Your task to perform on an android device: Show me productivity apps on the Play Store Image 0: 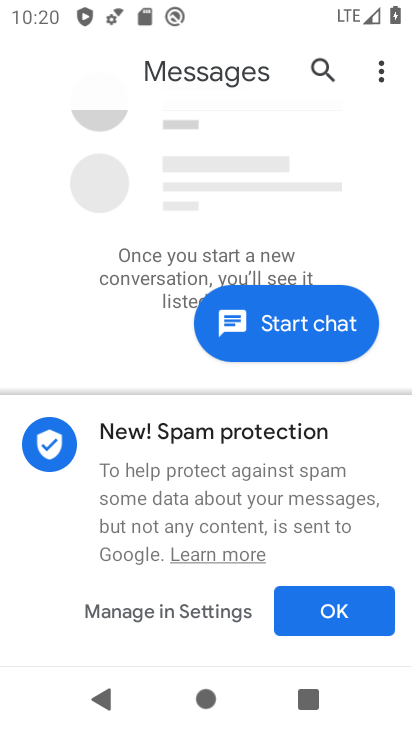
Step 0: press back button
Your task to perform on an android device: Show me productivity apps on the Play Store Image 1: 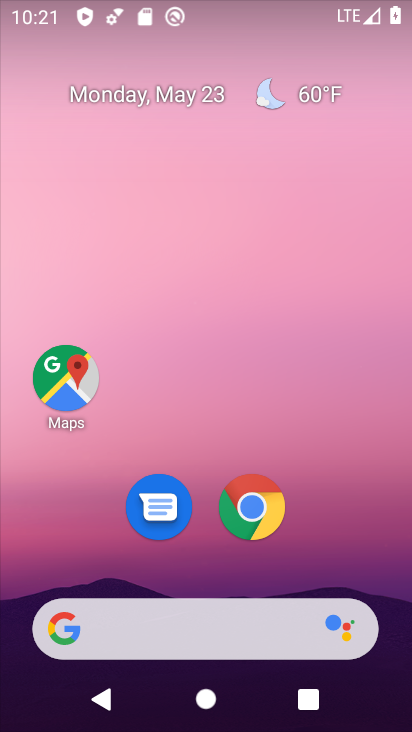
Step 1: drag from (329, 536) to (400, 18)
Your task to perform on an android device: Show me productivity apps on the Play Store Image 2: 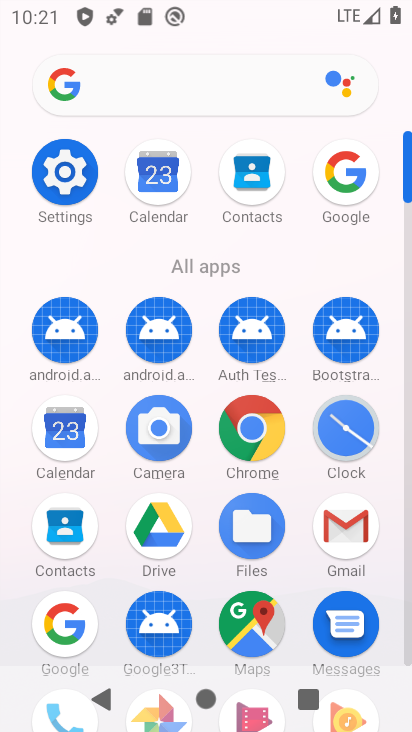
Step 2: drag from (203, 532) to (211, 260)
Your task to perform on an android device: Show me productivity apps on the Play Store Image 3: 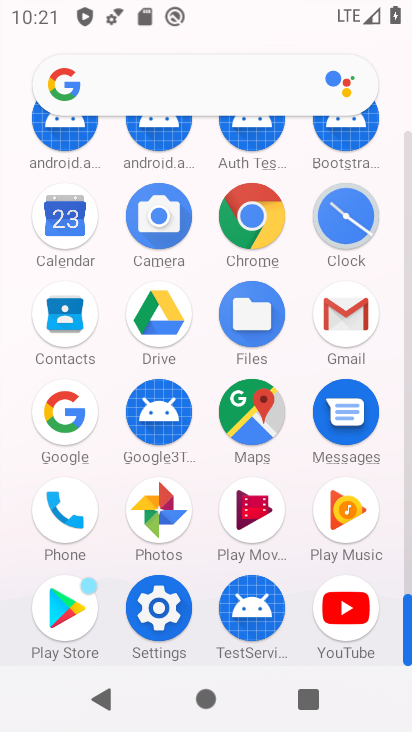
Step 3: click (69, 608)
Your task to perform on an android device: Show me productivity apps on the Play Store Image 4: 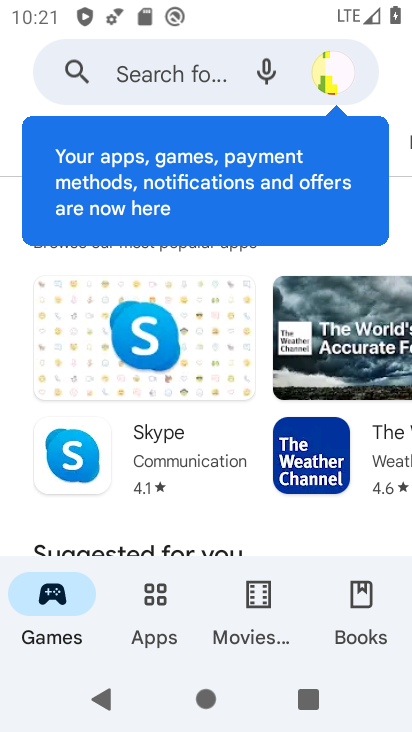
Step 4: click (150, 604)
Your task to perform on an android device: Show me productivity apps on the Play Store Image 5: 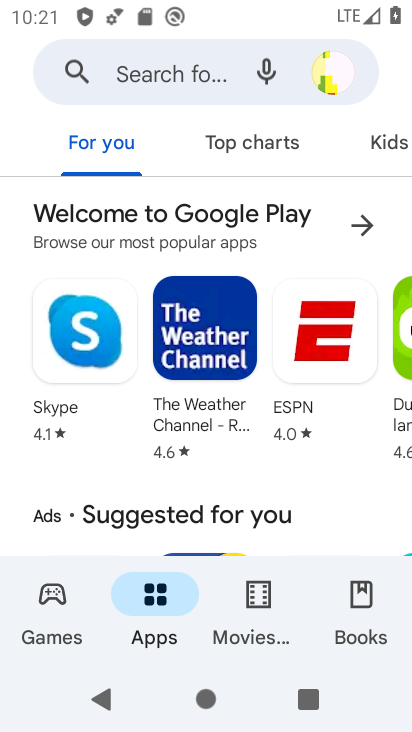
Step 5: drag from (369, 146) to (205, 156)
Your task to perform on an android device: Show me productivity apps on the Play Store Image 6: 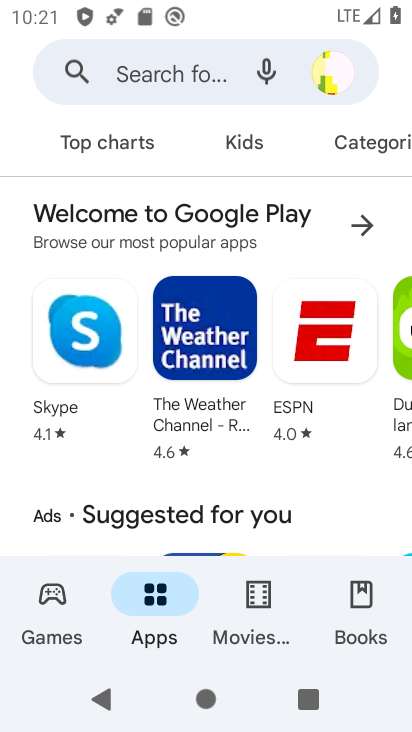
Step 6: click (391, 146)
Your task to perform on an android device: Show me productivity apps on the Play Store Image 7: 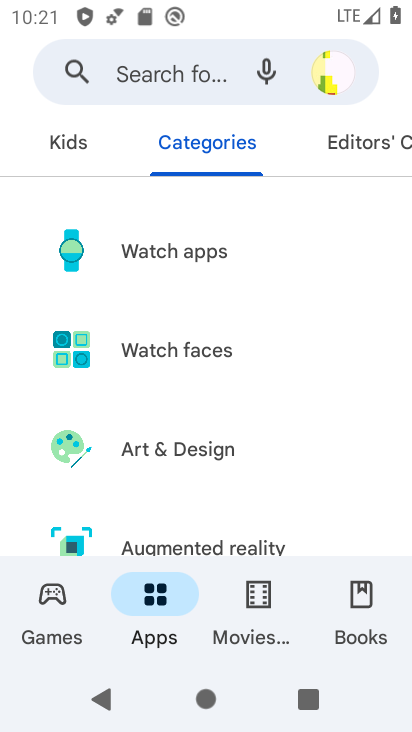
Step 7: drag from (154, 408) to (271, 268)
Your task to perform on an android device: Show me productivity apps on the Play Store Image 8: 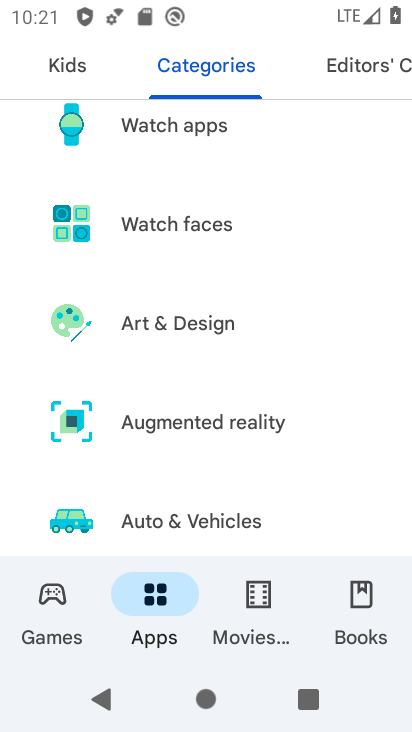
Step 8: drag from (159, 382) to (268, 251)
Your task to perform on an android device: Show me productivity apps on the Play Store Image 9: 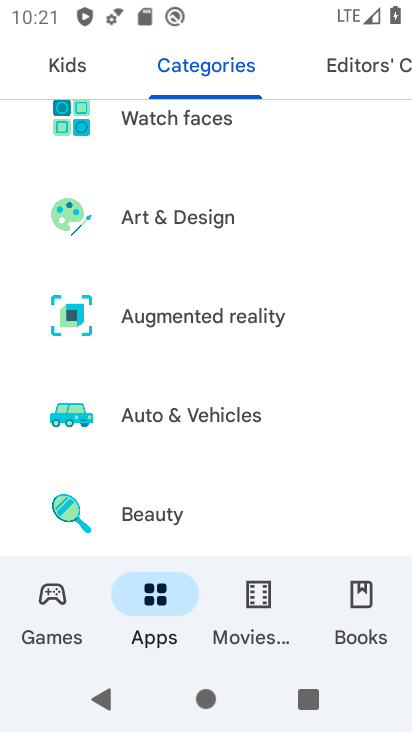
Step 9: drag from (180, 375) to (275, 266)
Your task to perform on an android device: Show me productivity apps on the Play Store Image 10: 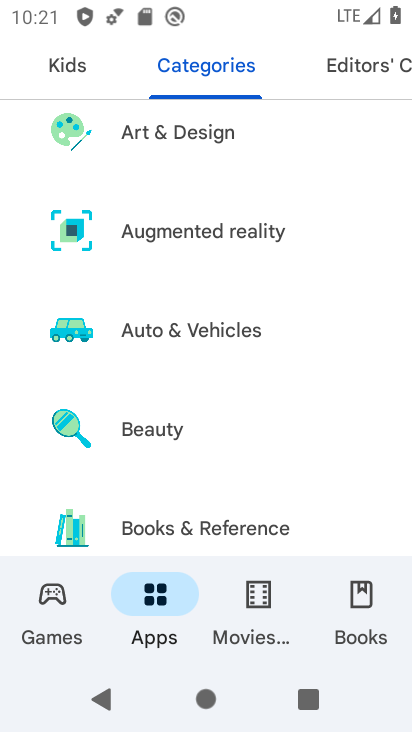
Step 10: drag from (168, 385) to (268, 272)
Your task to perform on an android device: Show me productivity apps on the Play Store Image 11: 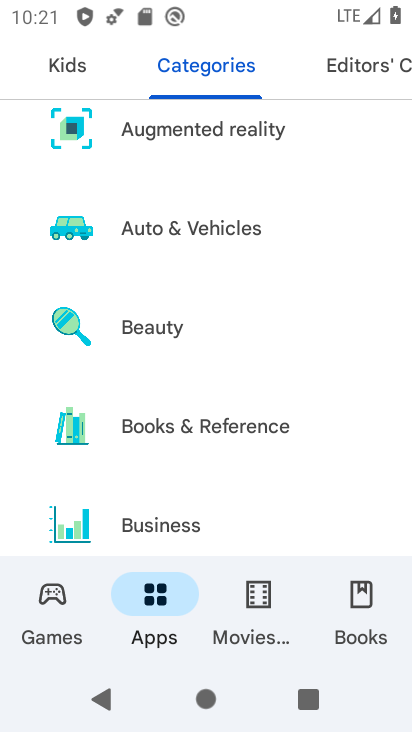
Step 11: drag from (148, 391) to (252, 270)
Your task to perform on an android device: Show me productivity apps on the Play Store Image 12: 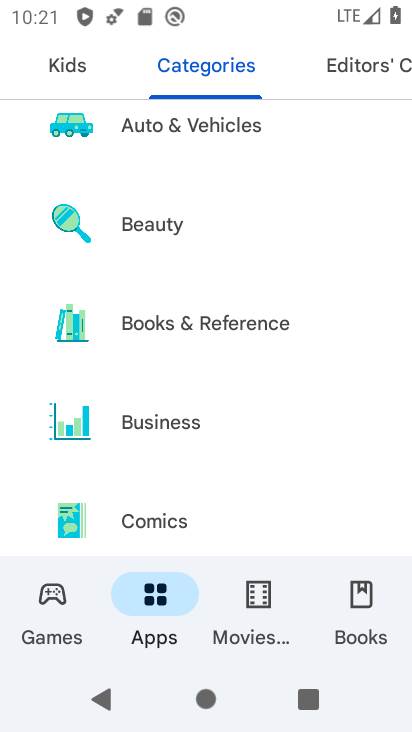
Step 12: drag from (156, 383) to (281, 229)
Your task to perform on an android device: Show me productivity apps on the Play Store Image 13: 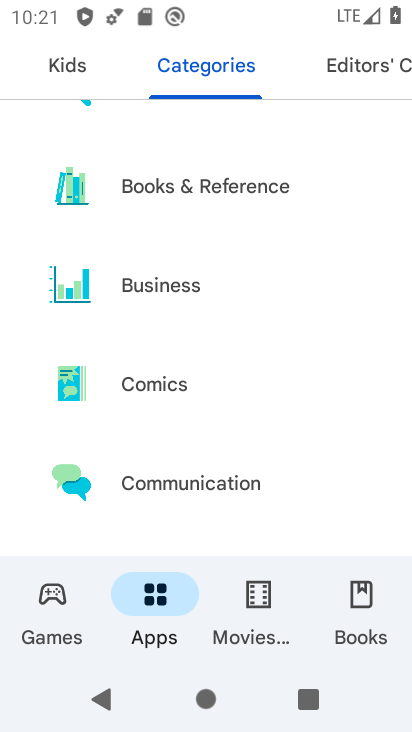
Step 13: drag from (145, 426) to (301, 245)
Your task to perform on an android device: Show me productivity apps on the Play Store Image 14: 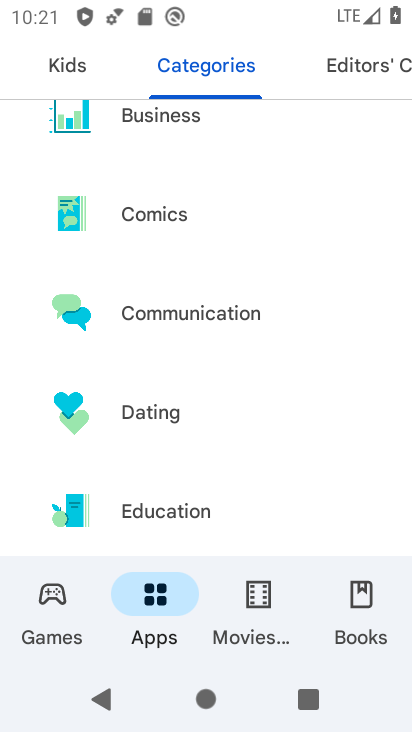
Step 14: drag from (151, 461) to (282, 211)
Your task to perform on an android device: Show me productivity apps on the Play Store Image 15: 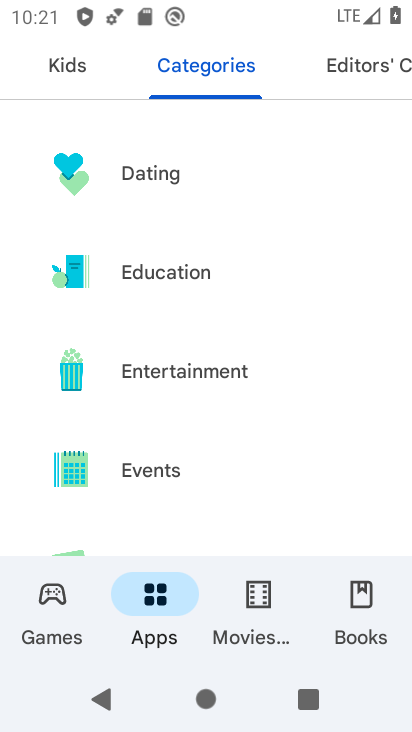
Step 15: drag from (163, 424) to (193, 327)
Your task to perform on an android device: Show me productivity apps on the Play Store Image 16: 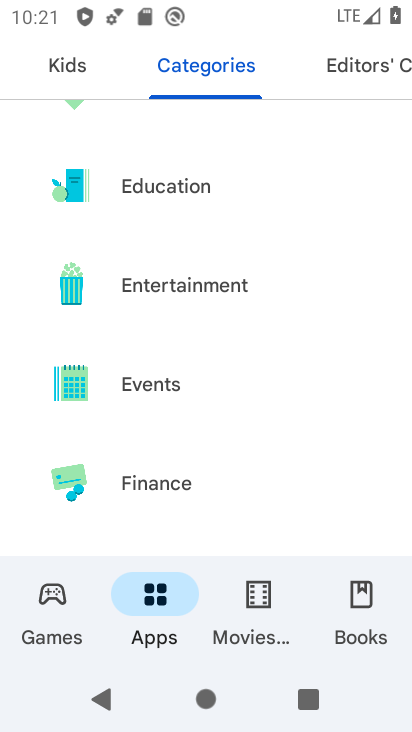
Step 16: drag from (138, 438) to (199, 337)
Your task to perform on an android device: Show me productivity apps on the Play Store Image 17: 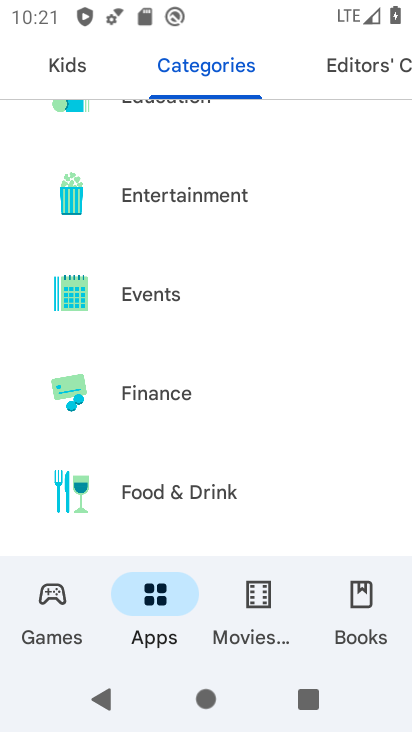
Step 17: drag from (164, 436) to (233, 347)
Your task to perform on an android device: Show me productivity apps on the Play Store Image 18: 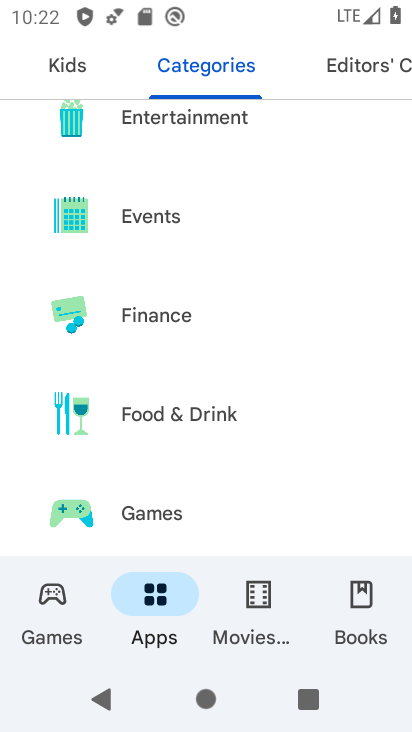
Step 18: drag from (149, 460) to (229, 349)
Your task to perform on an android device: Show me productivity apps on the Play Store Image 19: 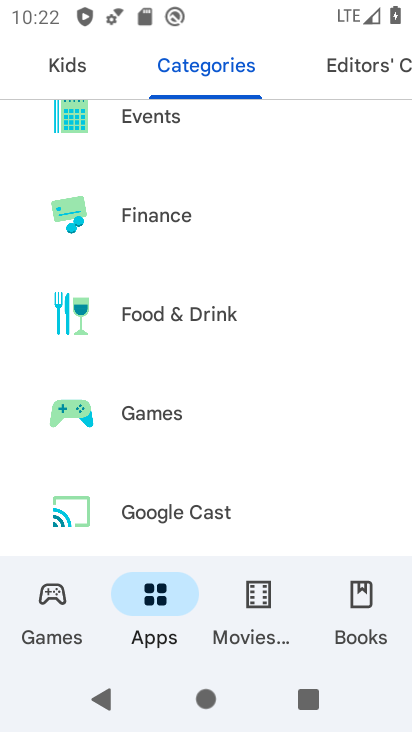
Step 19: drag from (145, 459) to (157, 328)
Your task to perform on an android device: Show me productivity apps on the Play Store Image 20: 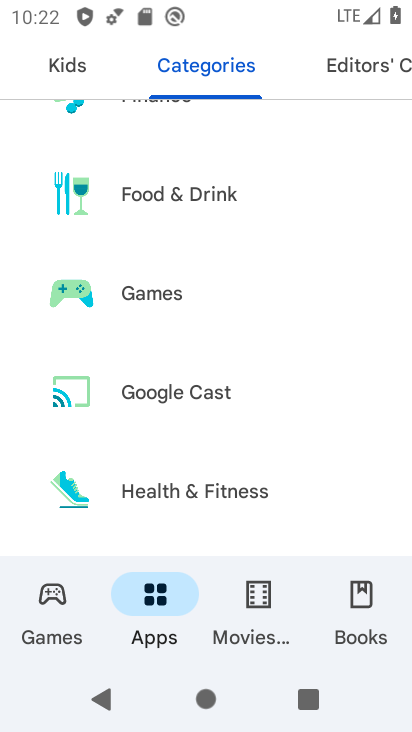
Step 20: drag from (164, 425) to (208, 333)
Your task to perform on an android device: Show me productivity apps on the Play Store Image 21: 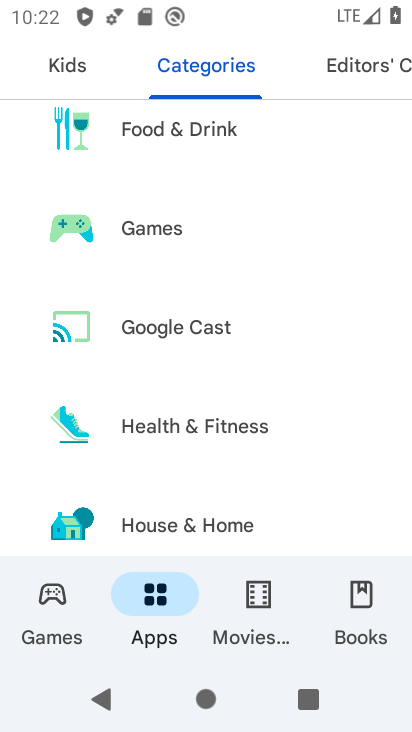
Step 21: drag from (148, 469) to (204, 356)
Your task to perform on an android device: Show me productivity apps on the Play Store Image 22: 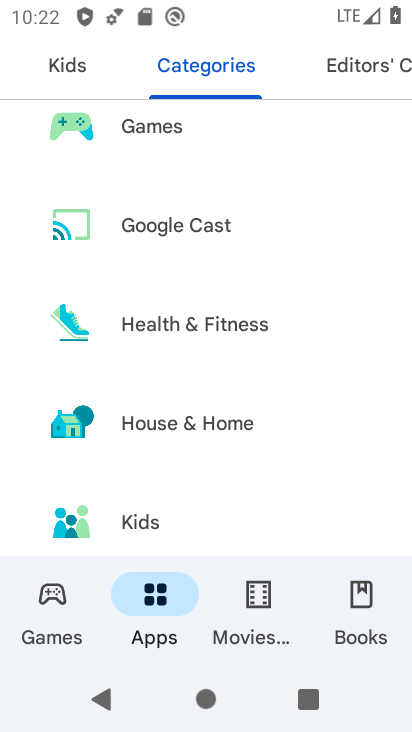
Step 22: drag from (161, 470) to (189, 358)
Your task to perform on an android device: Show me productivity apps on the Play Store Image 23: 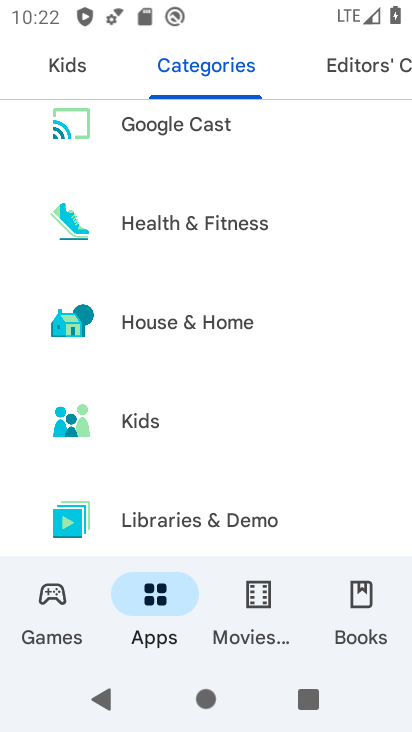
Step 23: drag from (146, 473) to (175, 337)
Your task to perform on an android device: Show me productivity apps on the Play Store Image 24: 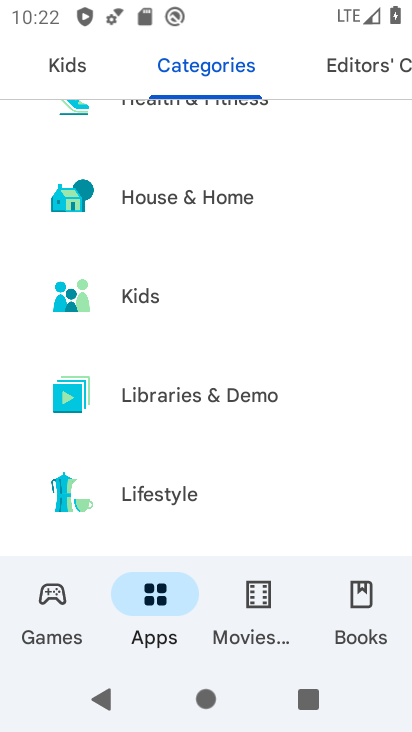
Step 24: drag from (138, 455) to (173, 356)
Your task to perform on an android device: Show me productivity apps on the Play Store Image 25: 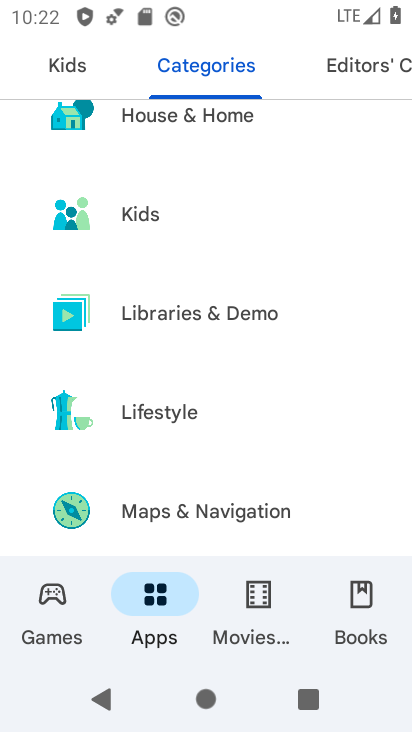
Step 25: drag from (155, 456) to (148, 344)
Your task to perform on an android device: Show me productivity apps on the Play Store Image 26: 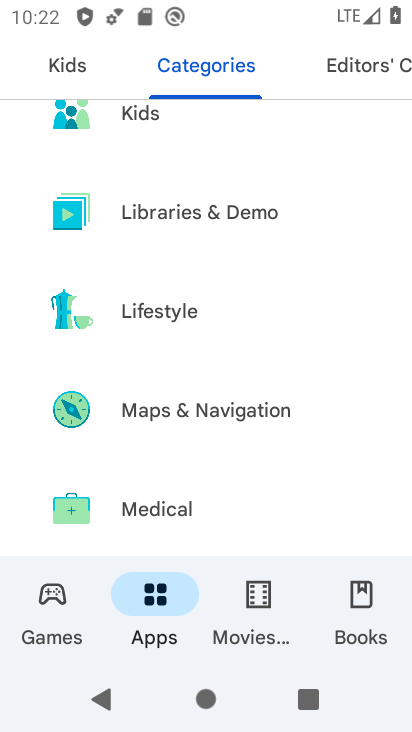
Step 26: drag from (149, 465) to (184, 329)
Your task to perform on an android device: Show me productivity apps on the Play Store Image 27: 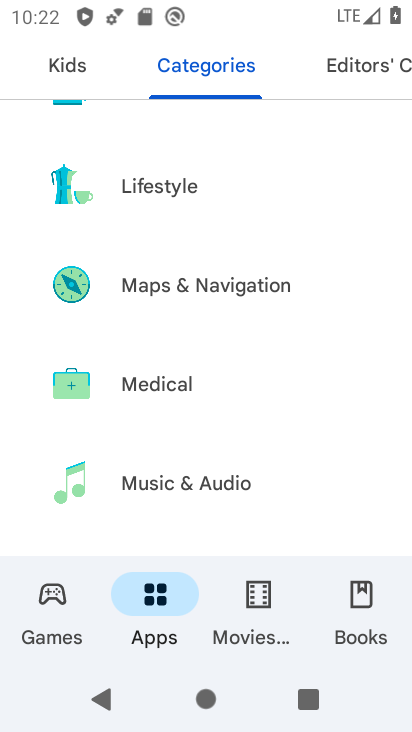
Step 27: drag from (147, 444) to (163, 289)
Your task to perform on an android device: Show me productivity apps on the Play Store Image 28: 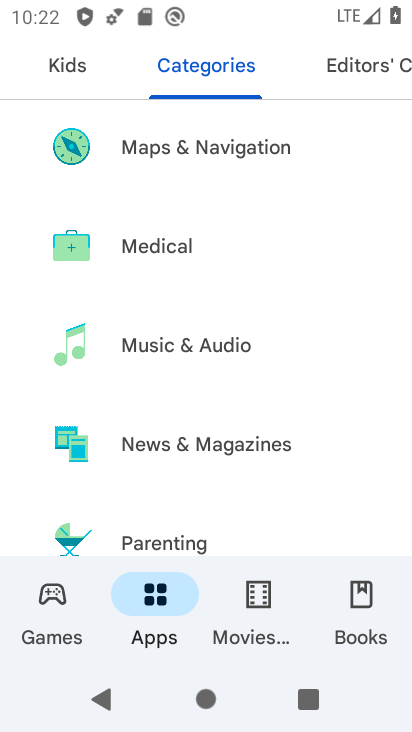
Step 28: drag from (146, 406) to (207, 294)
Your task to perform on an android device: Show me productivity apps on the Play Store Image 29: 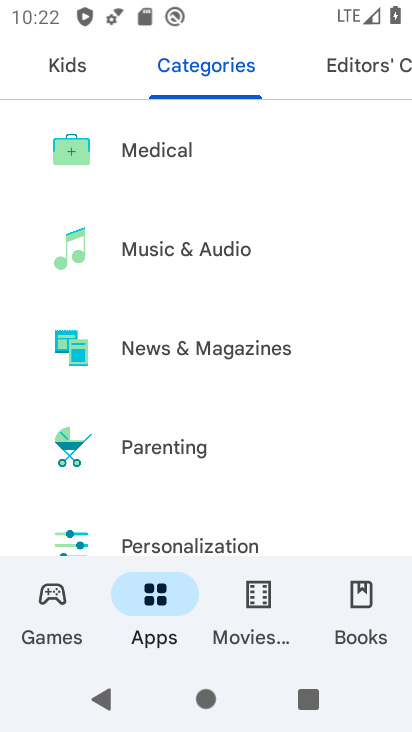
Step 29: drag from (147, 413) to (233, 272)
Your task to perform on an android device: Show me productivity apps on the Play Store Image 30: 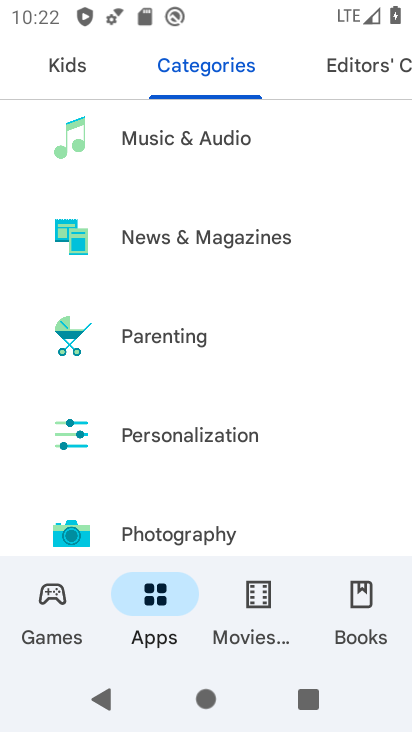
Step 30: drag from (161, 479) to (234, 333)
Your task to perform on an android device: Show me productivity apps on the Play Store Image 31: 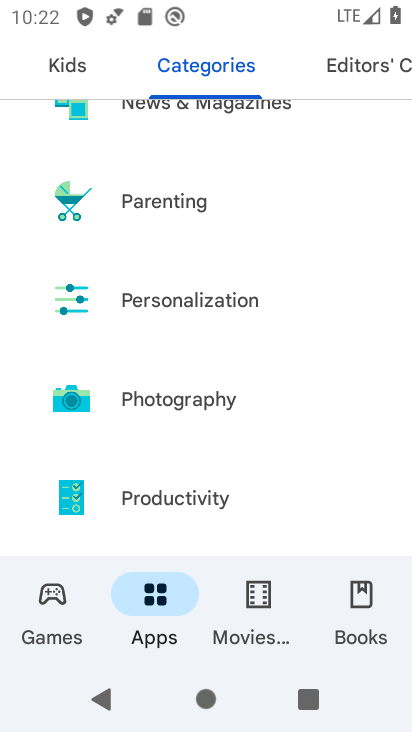
Step 31: click (157, 501)
Your task to perform on an android device: Show me productivity apps on the Play Store Image 32: 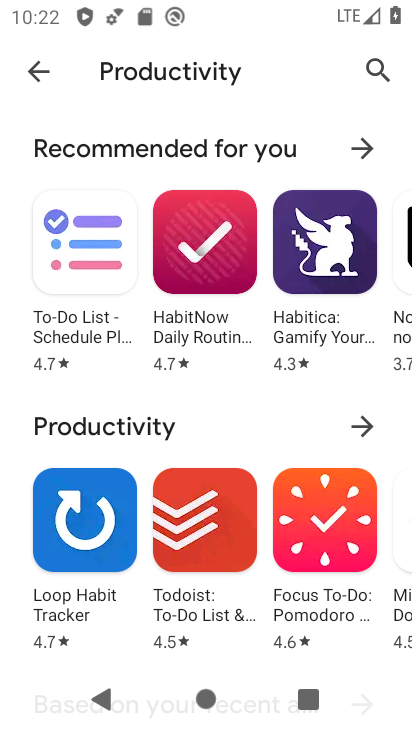
Step 32: task complete